Your task to perform on an android device: Open Chrome and go to settings Image 0: 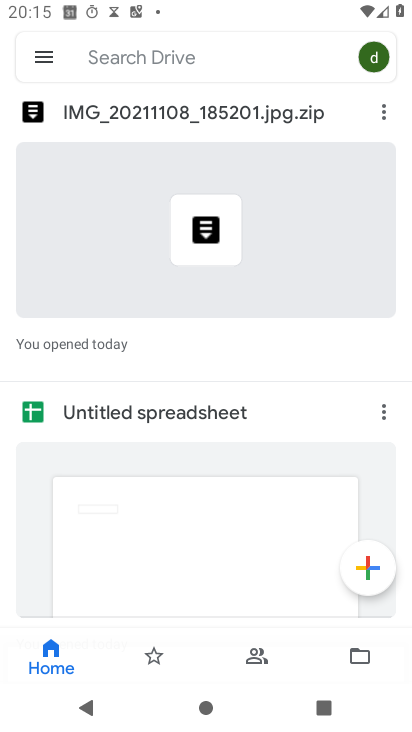
Step 0: press home button
Your task to perform on an android device: Open Chrome and go to settings Image 1: 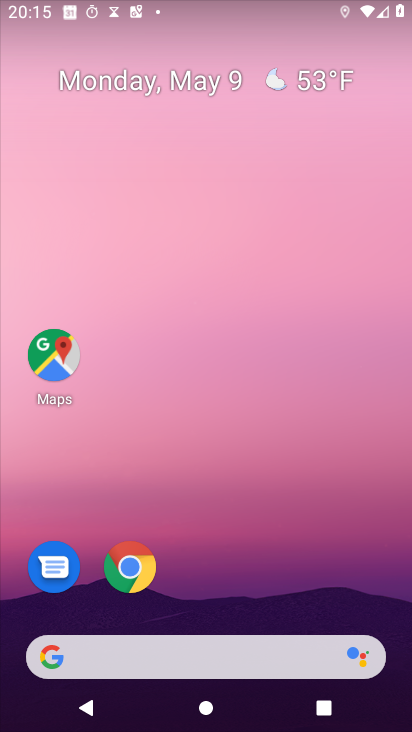
Step 1: click (125, 560)
Your task to perform on an android device: Open Chrome and go to settings Image 2: 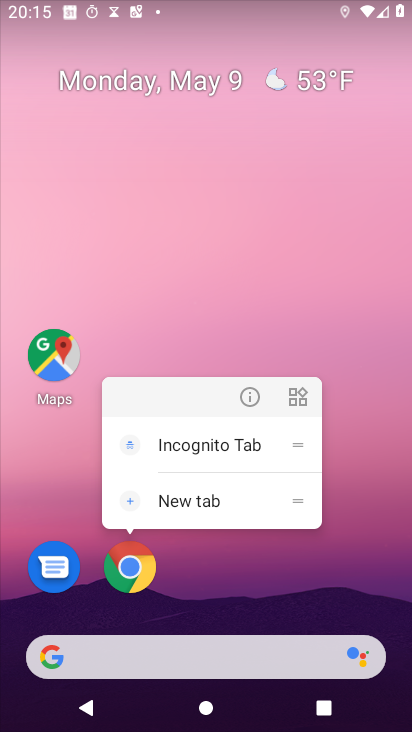
Step 2: click (125, 560)
Your task to perform on an android device: Open Chrome and go to settings Image 3: 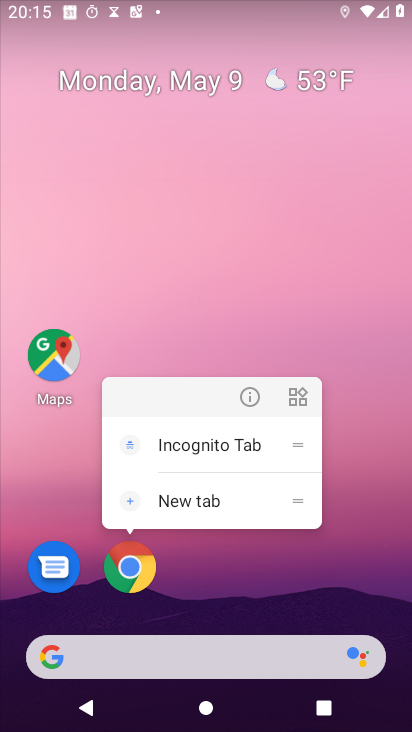
Step 3: click (125, 560)
Your task to perform on an android device: Open Chrome and go to settings Image 4: 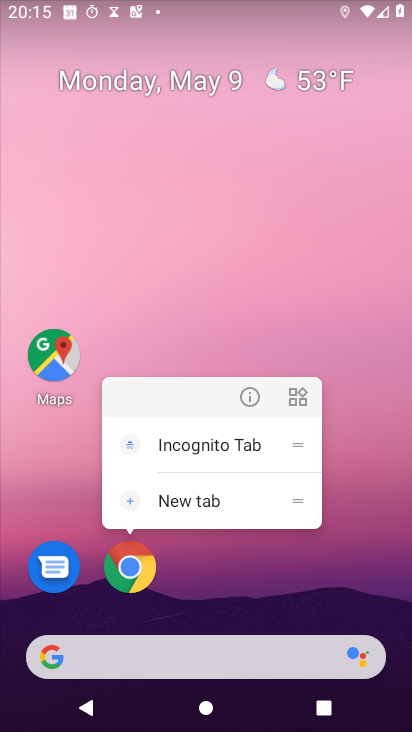
Step 4: click (124, 569)
Your task to perform on an android device: Open Chrome and go to settings Image 5: 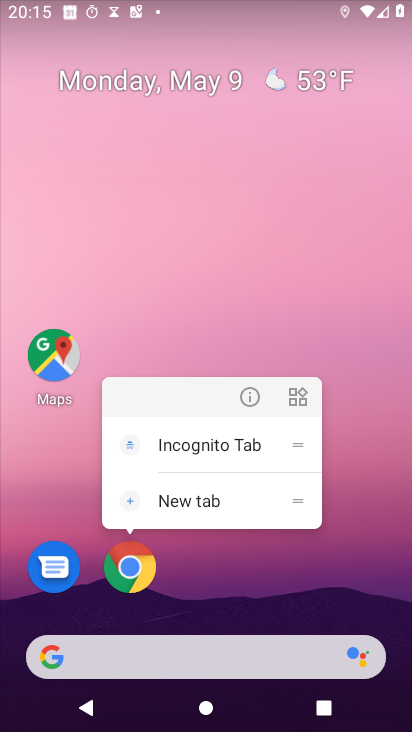
Step 5: click (124, 569)
Your task to perform on an android device: Open Chrome and go to settings Image 6: 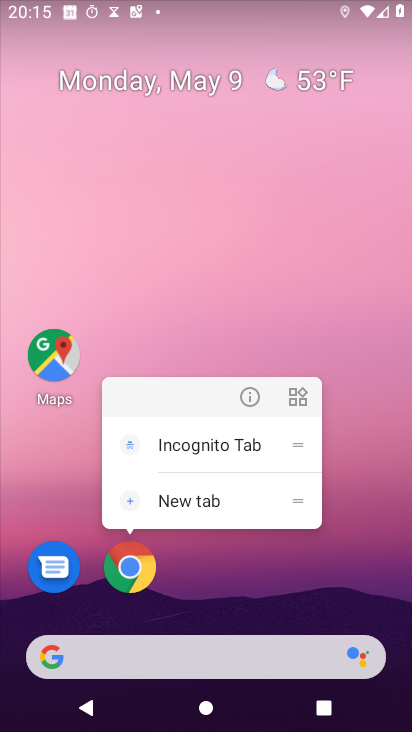
Step 6: click (124, 569)
Your task to perform on an android device: Open Chrome and go to settings Image 7: 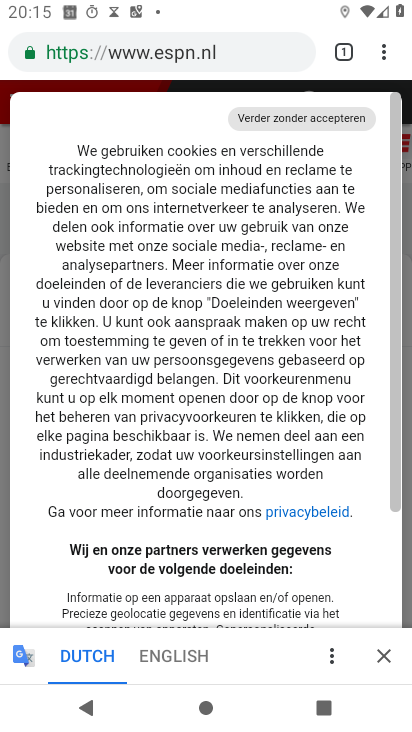
Step 7: click (378, 46)
Your task to perform on an android device: Open Chrome and go to settings Image 8: 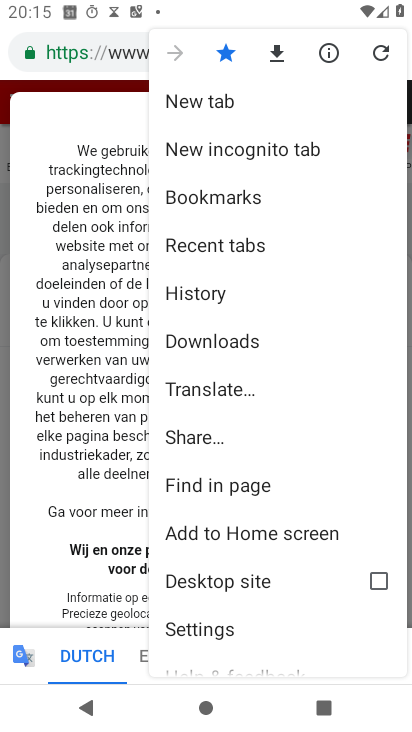
Step 8: click (208, 623)
Your task to perform on an android device: Open Chrome and go to settings Image 9: 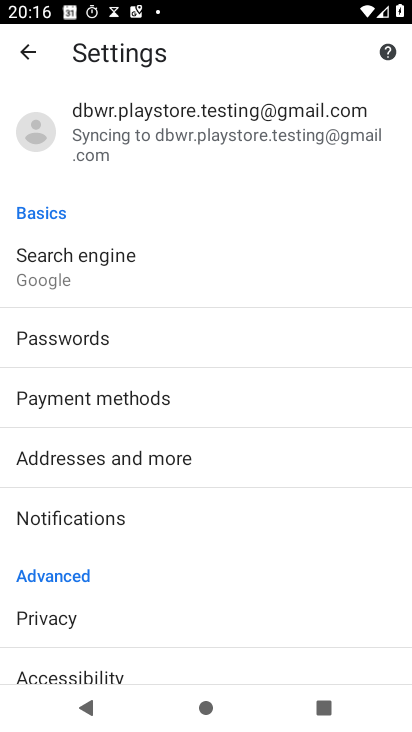
Step 9: task complete